Your task to perform on an android device: make emails show in primary in the gmail app Image 0: 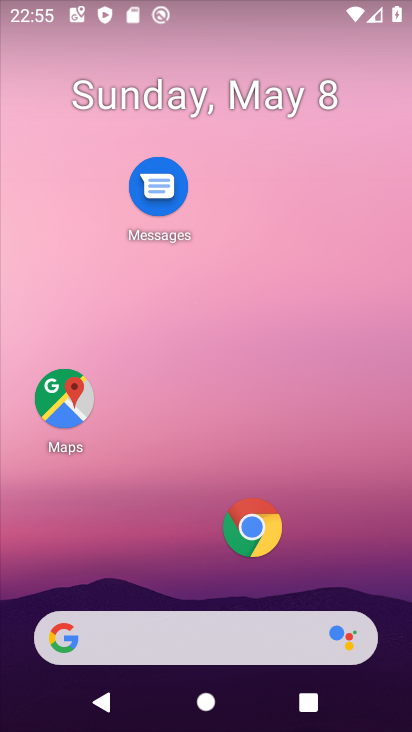
Step 0: drag from (181, 541) to (213, 61)
Your task to perform on an android device: make emails show in primary in the gmail app Image 1: 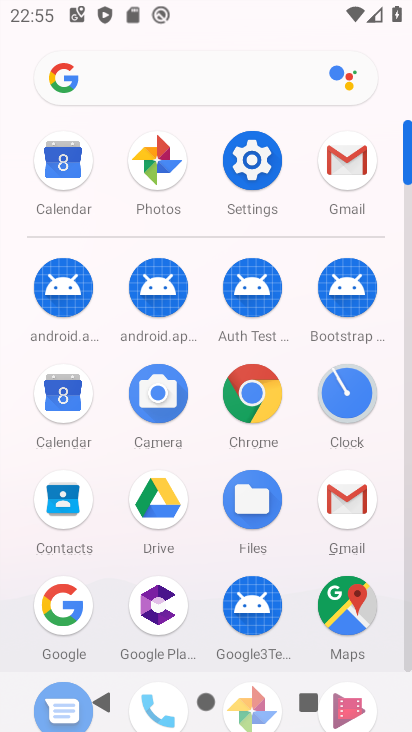
Step 1: click (340, 159)
Your task to perform on an android device: make emails show in primary in the gmail app Image 2: 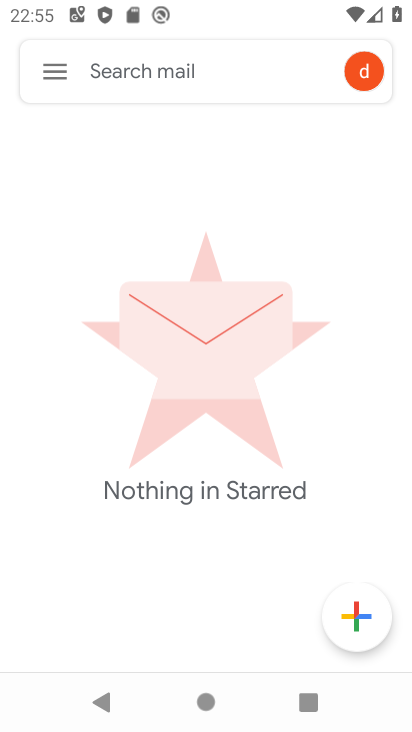
Step 2: click (58, 73)
Your task to perform on an android device: make emails show in primary in the gmail app Image 3: 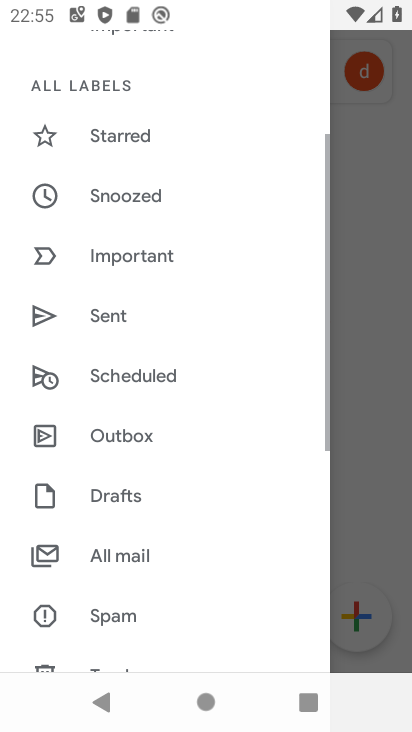
Step 3: drag from (165, 484) to (189, 22)
Your task to perform on an android device: make emails show in primary in the gmail app Image 4: 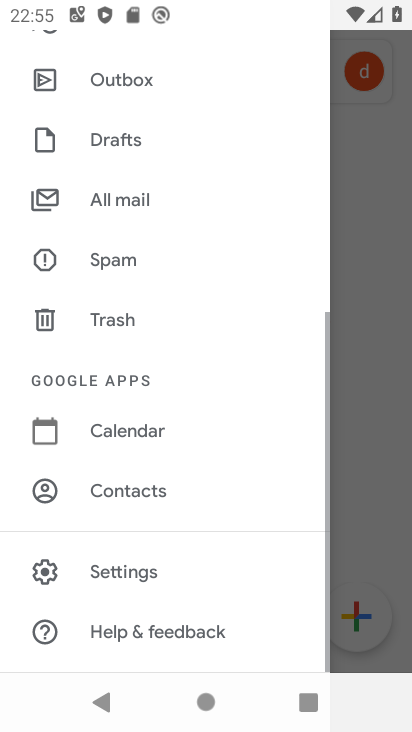
Step 4: click (126, 572)
Your task to perform on an android device: make emails show in primary in the gmail app Image 5: 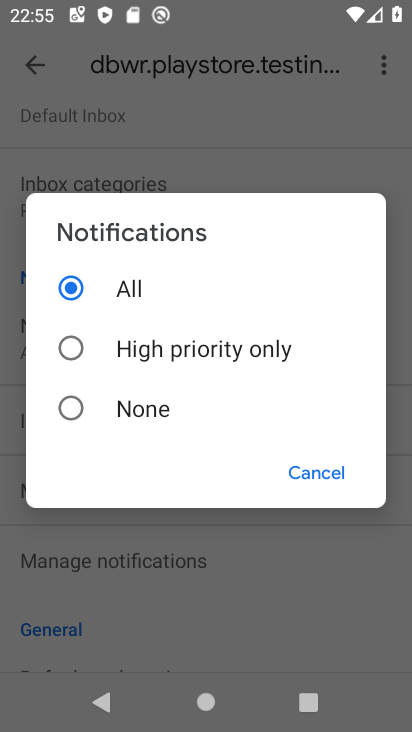
Step 5: click (317, 471)
Your task to perform on an android device: make emails show in primary in the gmail app Image 6: 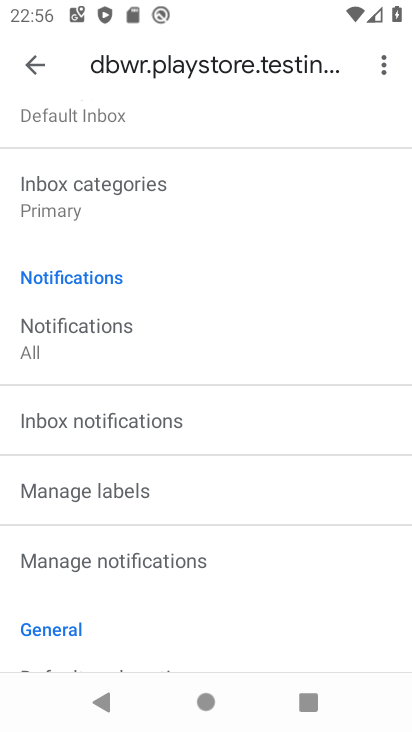
Step 6: task complete